Your task to perform on an android device: Open Wikipedia Image 0: 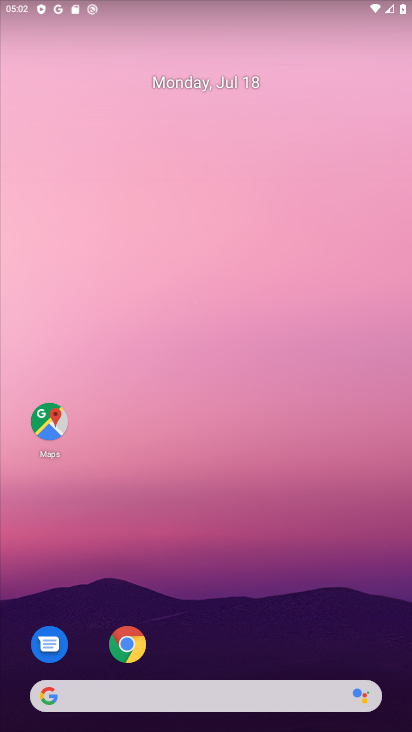
Step 0: click (51, 702)
Your task to perform on an android device: Open Wikipedia Image 1: 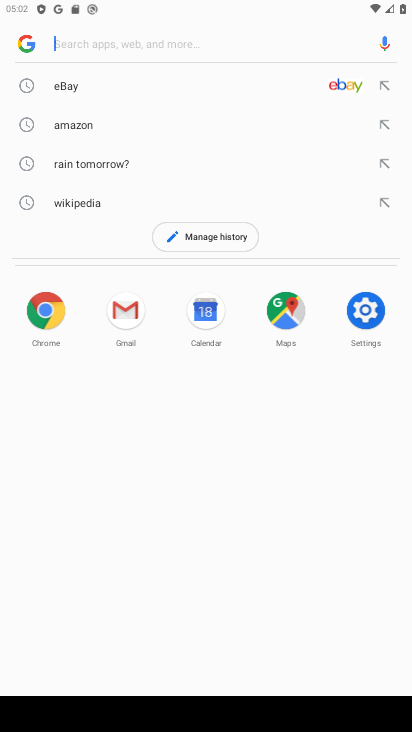
Step 1: click (82, 199)
Your task to perform on an android device: Open Wikipedia Image 2: 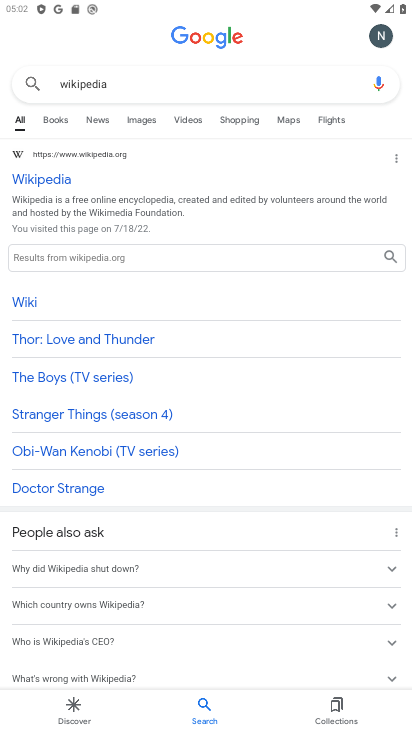
Step 2: click (35, 176)
Your task to perform on an android device: Open Wikipedia Image 3: 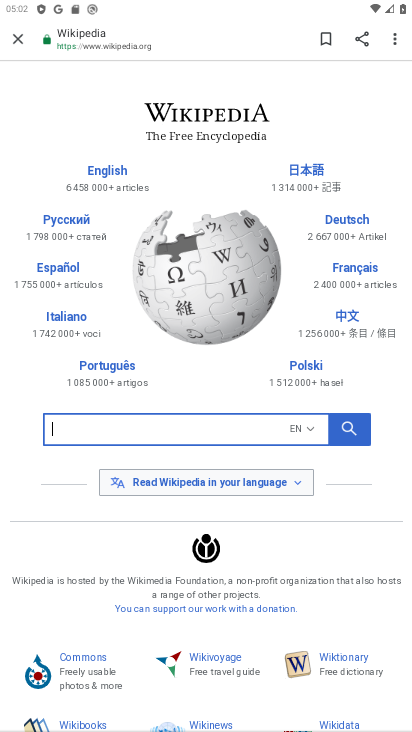
Step 3: task complete